Your task to perform on an android device: change the clock display to digital Image 0: 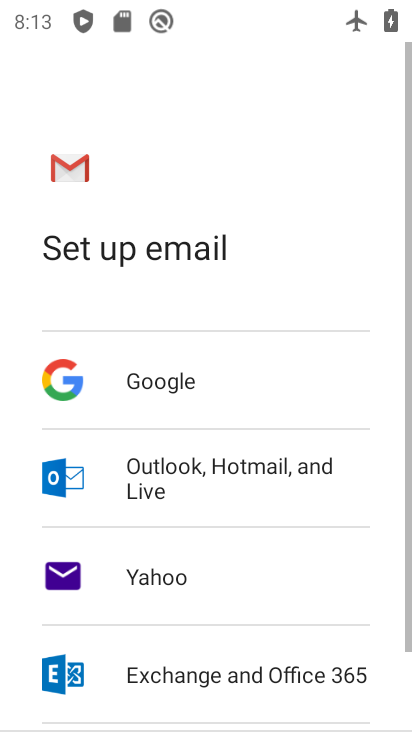
Step 0: press home button
Your task to perform on an android device: change the clock display to digital Image 1: 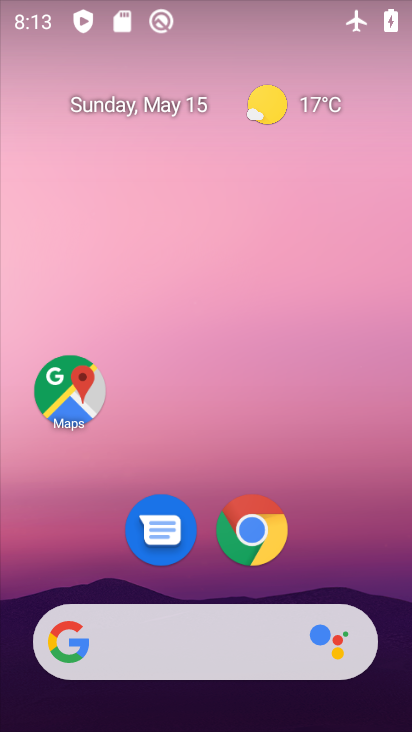
Step 1: drag from (214, 663) to (219, 136)
Your task to perform on an android device: change the clock display to digital Image 2: 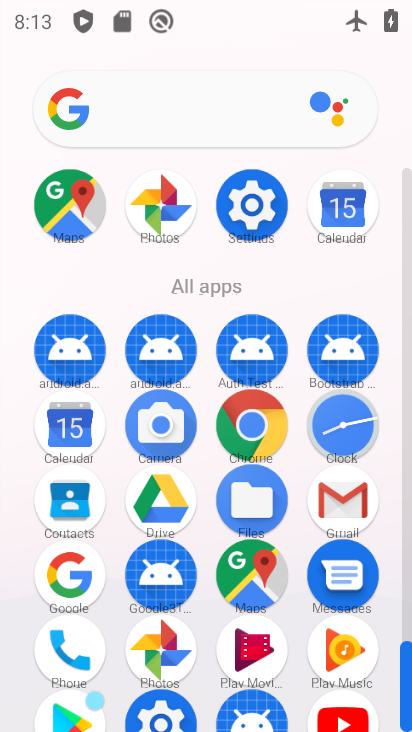
Step 2: click (350, 439)
Your task to perform on an android device: change the clock display to digital Image 3: 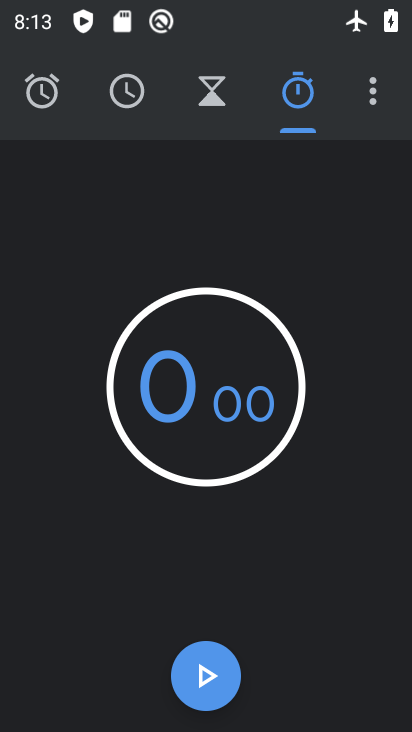
Step 3: click (372, 96)
Your task to perform on an android device: change the clock display to digital Image 4: 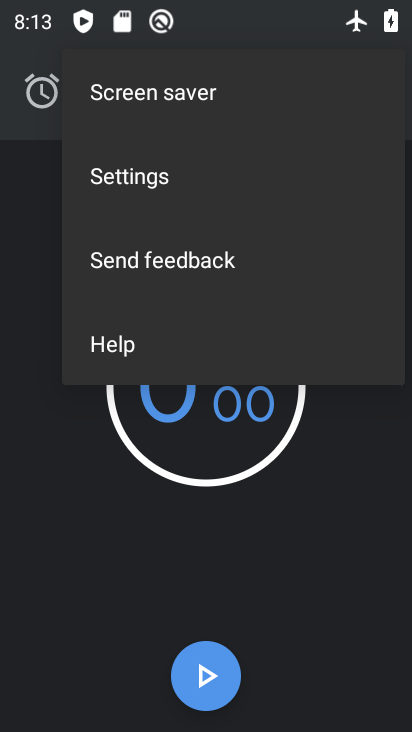
Step 4: click (129, 184)
Your task to perform on an android device: change the clock display to digital Image 5: 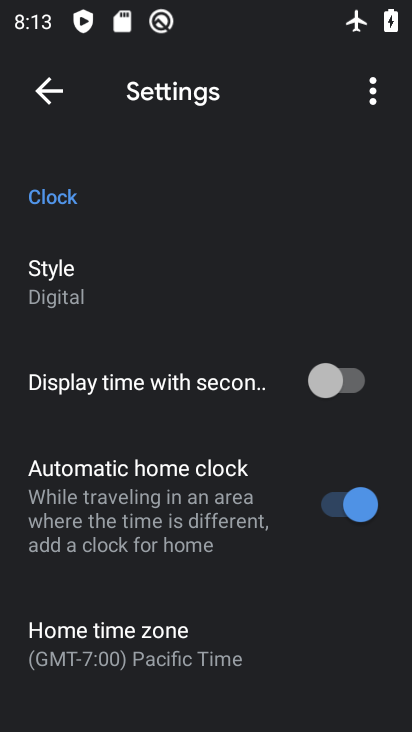
Step 5: task complete